Your task to perform on an android device: Check the news Image 0: 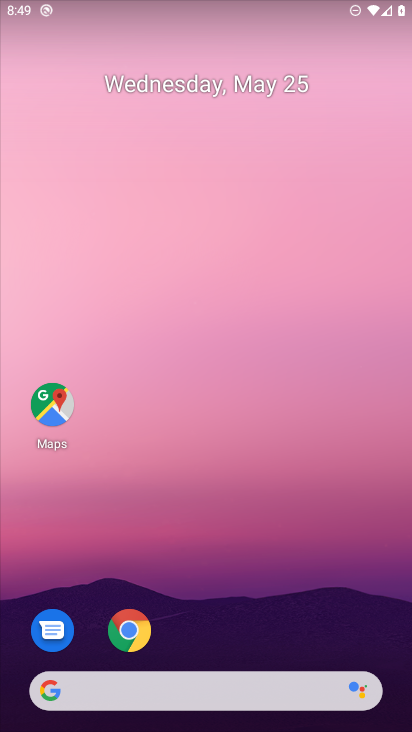
Step 0: drag from (226, 670) to (290, 245)
Your task to perform on an android device: Check the news Image 1: 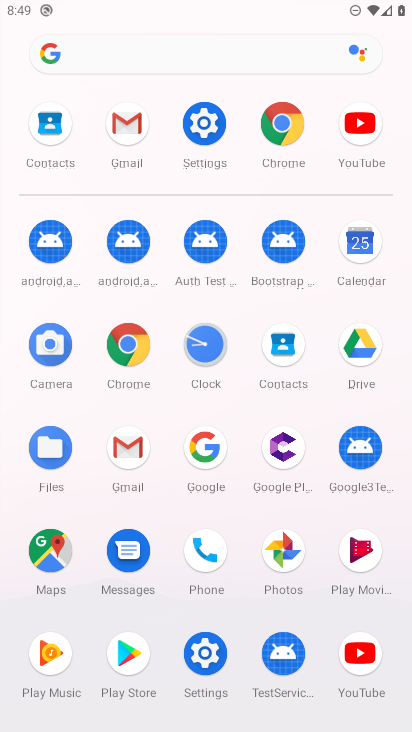
Step 1: click (205, 455)
Your task to perform on an android device: Check the news Image 2: 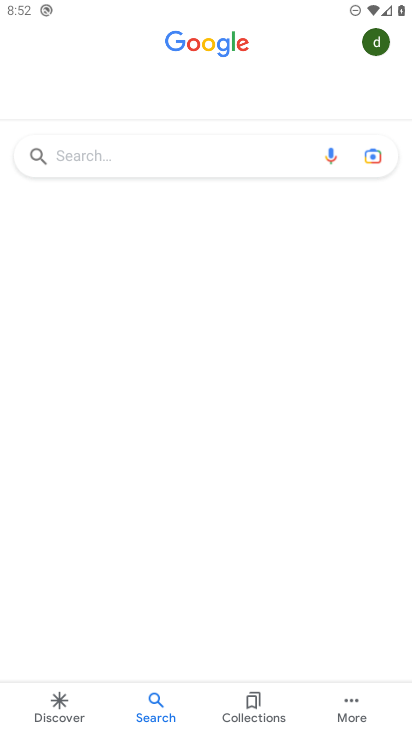
Step 2: click (196, 161)
Your task to perform on an android device: Check the news Image 3: 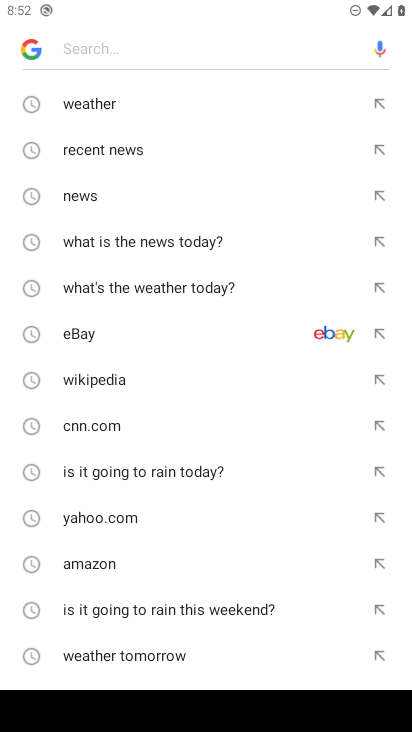
Step 3: click (91, 196)
Your task to perform on an android device: Check the news Image 4: 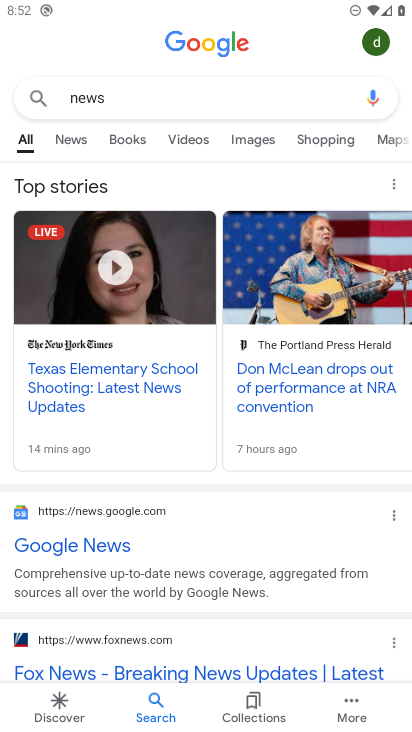
Step 4: task complete